Your task to perform on an android device: Show me the alarms in the clock app Image 0: 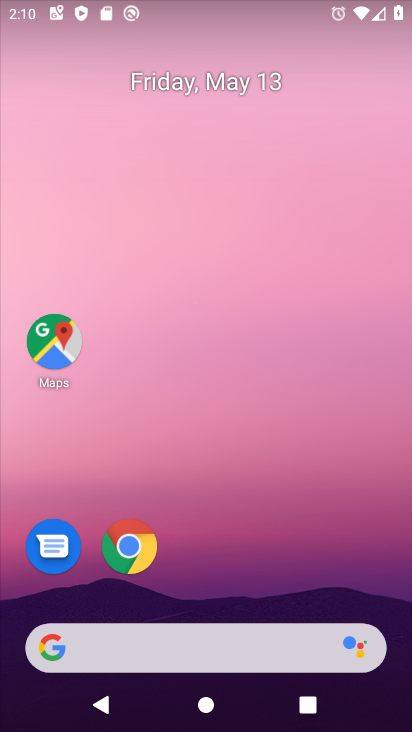
Step 0: drag from (316, 580) to (315, 103)
Your task to perform on an android device: Show me the alarms in the clock app Image 1: 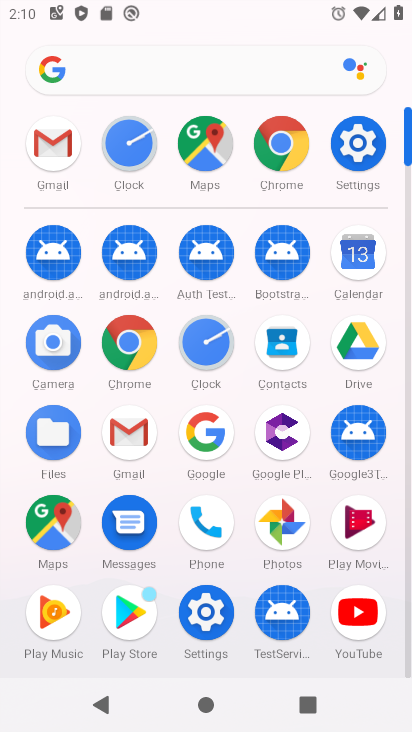
Step 1: click (207, 340)
Your task to perform on an android device: Show me the alarms in the clock app Image 2: 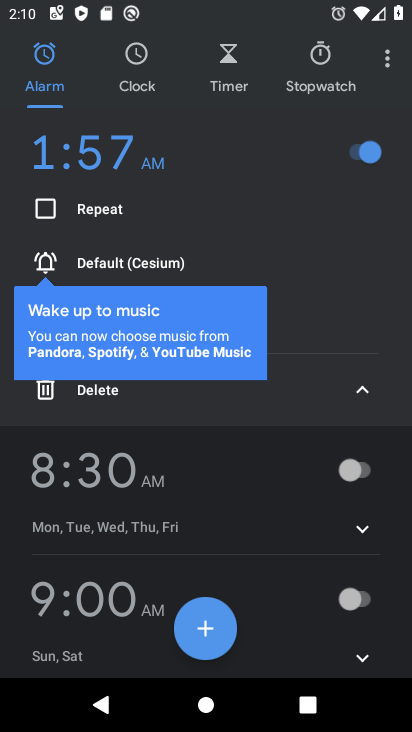
Step 2: task complete